Your task to perform on an android device: add a label to a message in the gmail app Image 0: 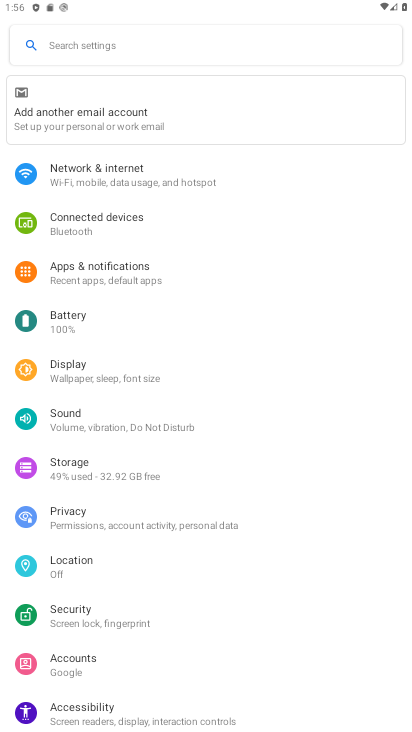
Step 0: press home button
Your task to perform on an android device: add a label to a message in the gmail app Image 1: 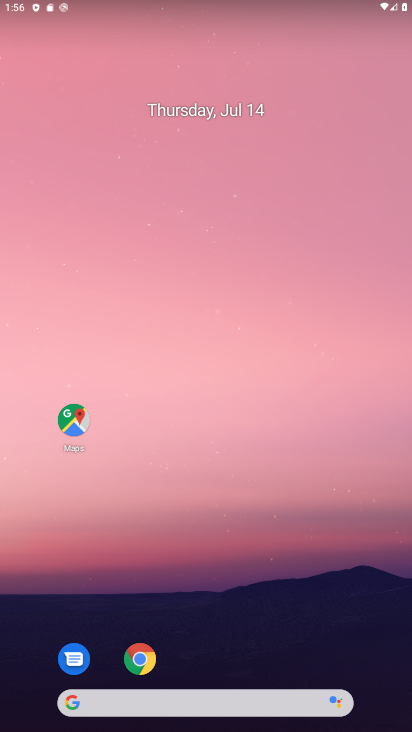
Step 1: drag from (272, 703) to (216, 135)
Your task to perform on an android device: add a label to a message in the gmail app Image 2: 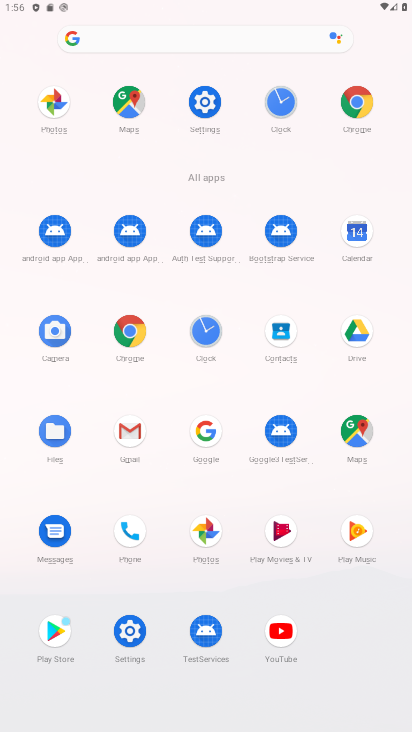
Step 2: click (136, 422)
Your task to perform on an android device: add a label to a message in the gmail app Image 3: 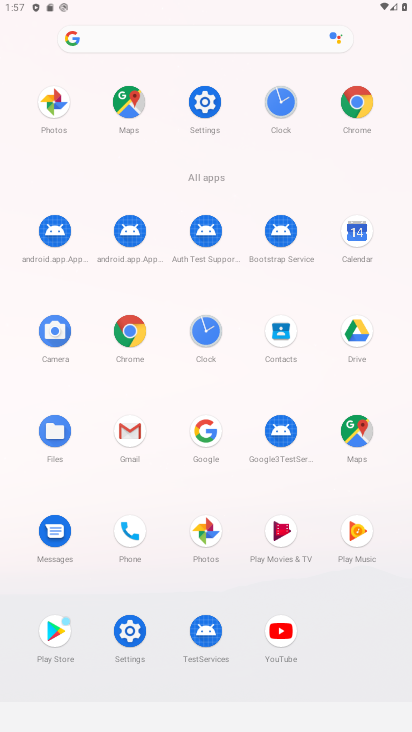
Step 3: click (135, 414)
Your task to perform on an android device: add a label to a message in the gmail app Image 4: 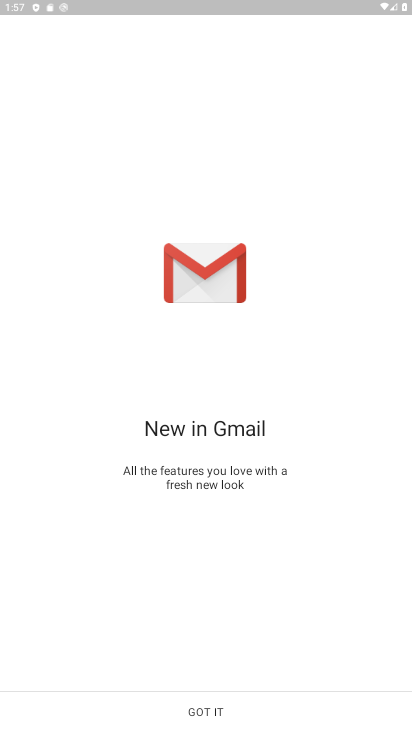
Step 4: click (192, 709)
Your task to perform on an android device: add a label to a message in the gmail app Image 5: 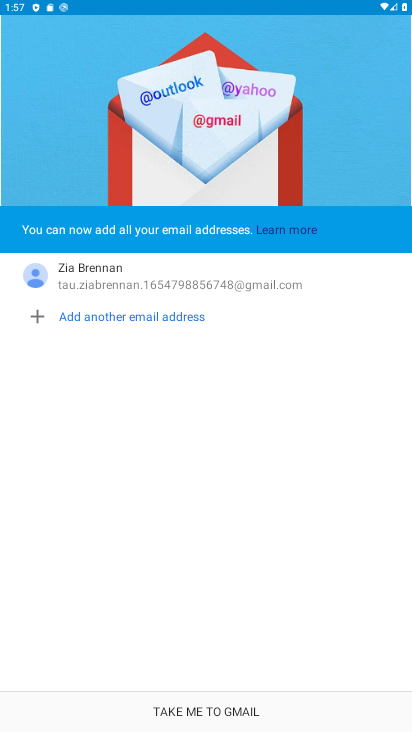
Step 5: click (212, 700)
Your task to perform on an android device: add a label to a message in the gmail app Image 6: 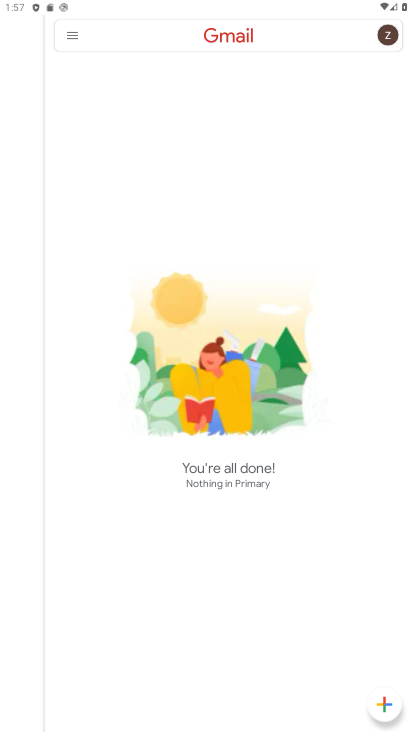
Step 6: click (68, 42)
Your task to perform on an android device: add a label to a message in the gmail app Image 7: 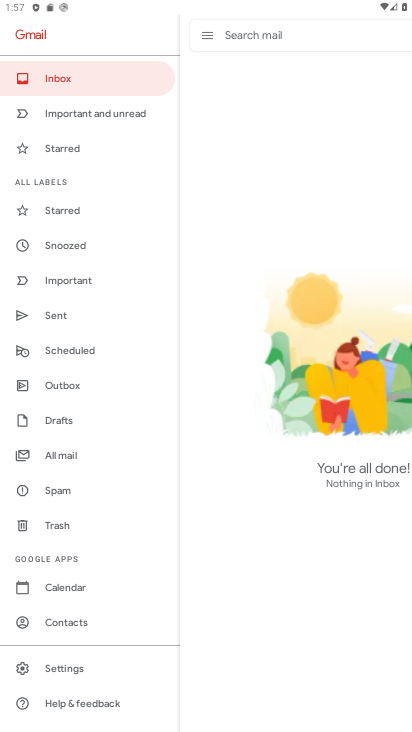
Step 7: click (71, 668)
Your task to perform on an android device: add a label to a message in the gmail app Image 8: 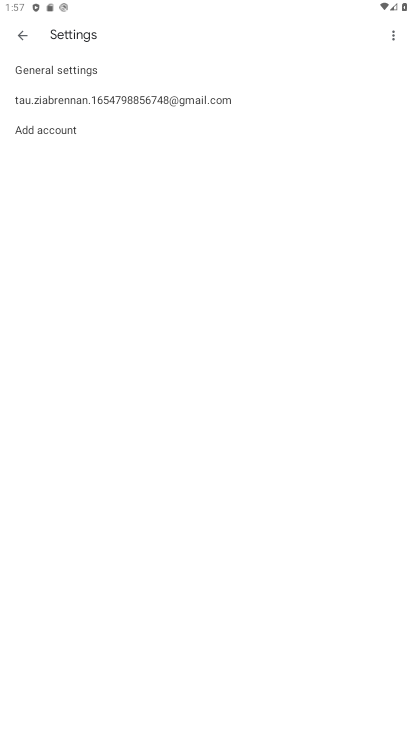
Step 8: click (156, 101)
Your task to perform on an android device: add a label to a message in the gmail app Image 9: 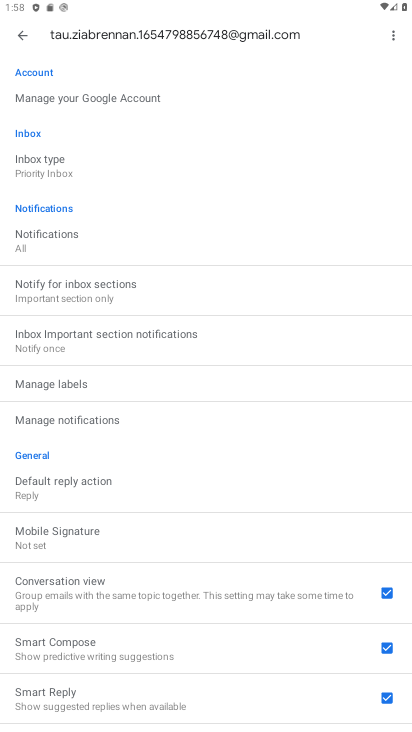
Step 9: click (69, 386)
Your task to perform on an android device: add a label to a message in the gmail app Image 10: 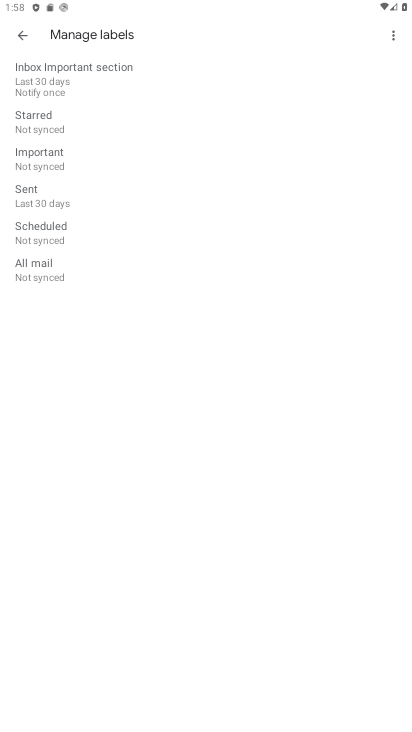
Step 10: click (82, 178)
Your task to perform on an android device: add a label to a message in the gmail app Image 11: 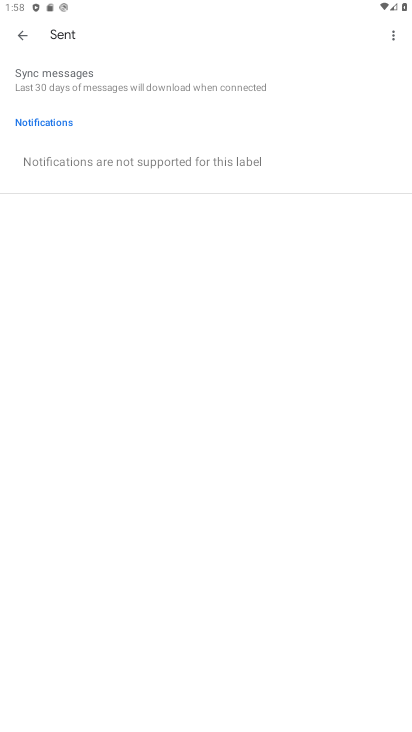
Step 11: task complete